Your task to perform on an android device: toggle javascript in the chrome app Image 0: 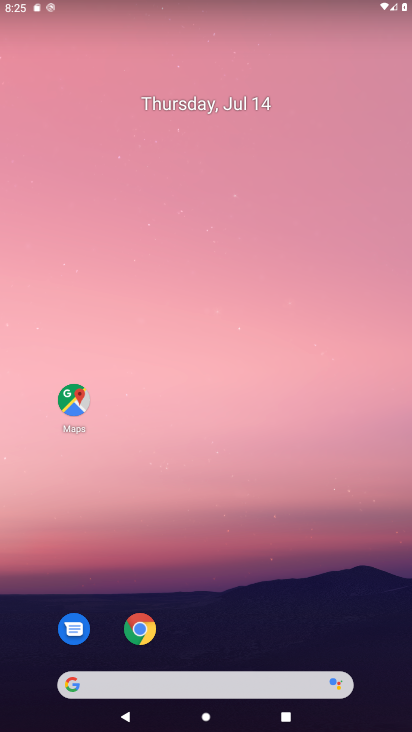
Step 0: click (138, 621)
Your task to perform on an android device: toggle javascript in the chrome app Image 1: 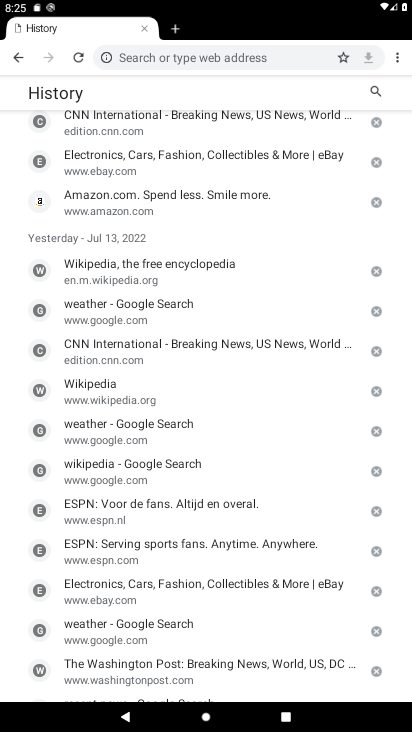
Step 1: click (392, 61)
Your task to perform on an android device: toggle javascript in the chrome app Image 2: 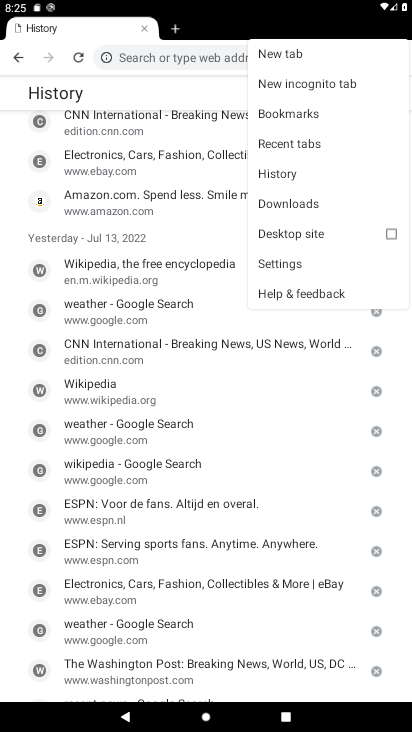
Step 2: click (281, 265)
Your task to perform on an android device: toggle javascript in the chrome app Image 3: 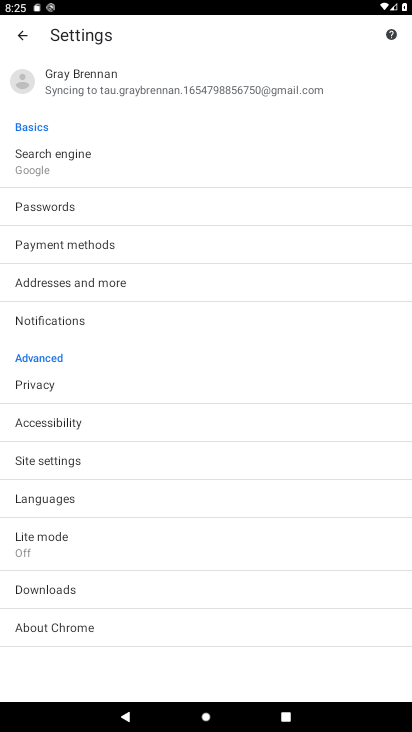
Step 3: click (65, 459)
Your task to perform on an android device: toggle javascript in the chrome app Image 4: 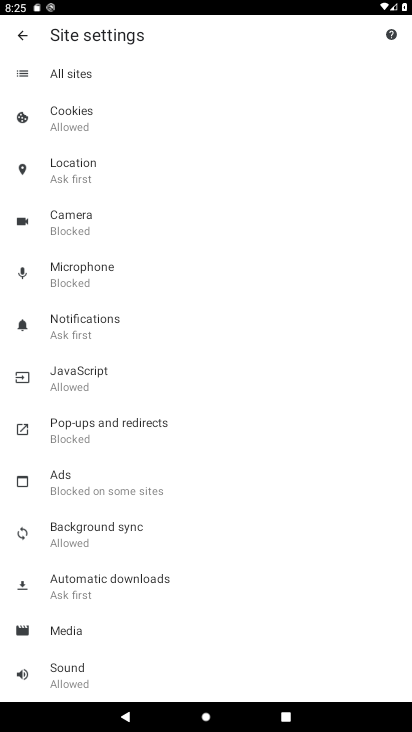
Step 4: click (92, 375)
Your task to perform on an android device: toggle javascript in the chrome app Image 5: 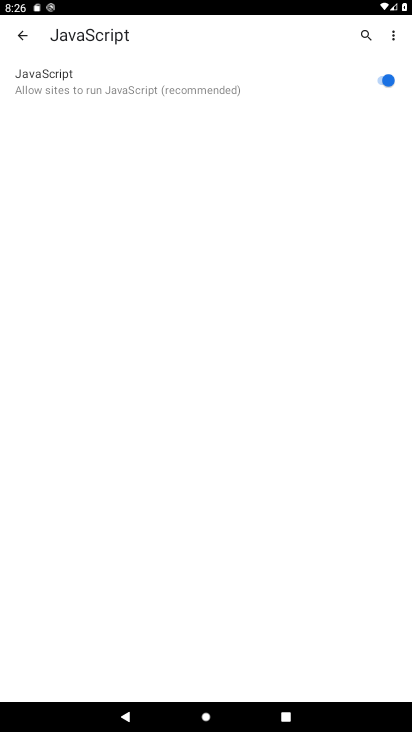
Step 5: click (361, 76)
Your task to perform on an android device: toggle javascript in the chrome app Image 6: 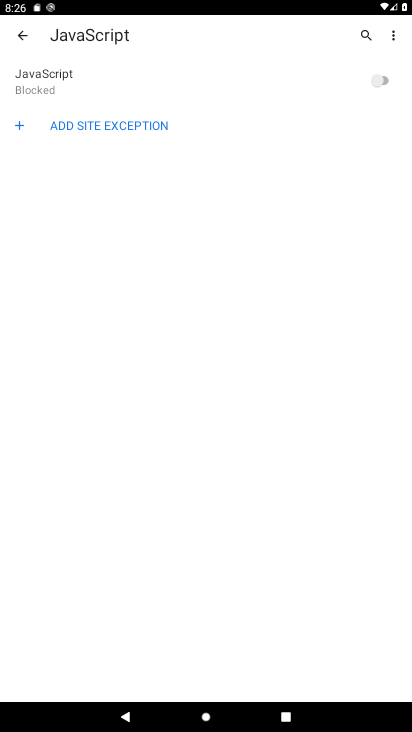
Step 6: task complete